Your task to perform on an android device: Open Chrome and go to settings Image 0: 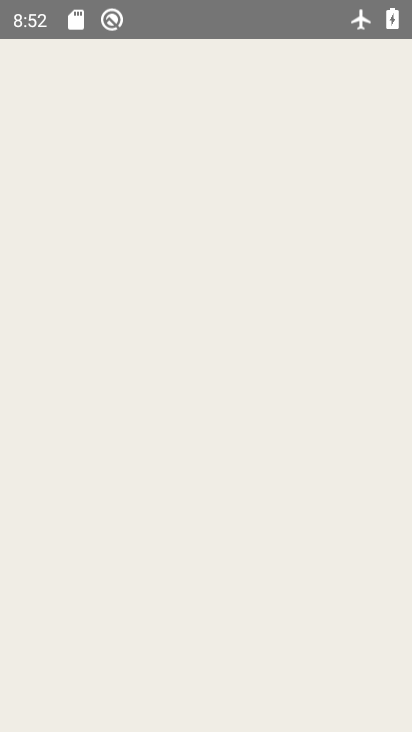
Step 0: click (204, 119)
Your task to perform on an android device: Open Chrome and go to settings Image 1: 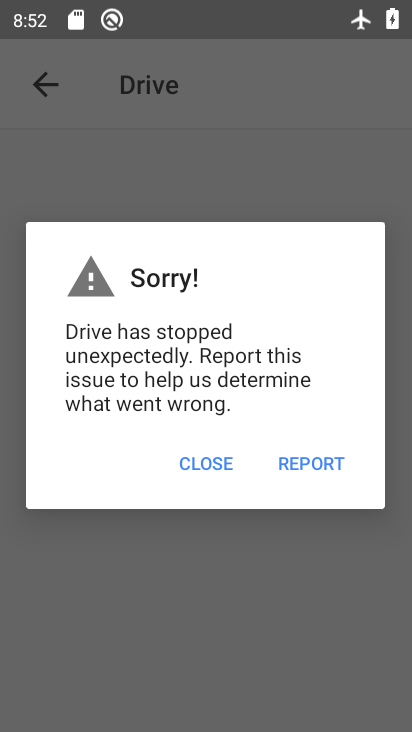
Step 1: press home button
Your task to perform on an android device: Open Chrome and go to settings Image 2: 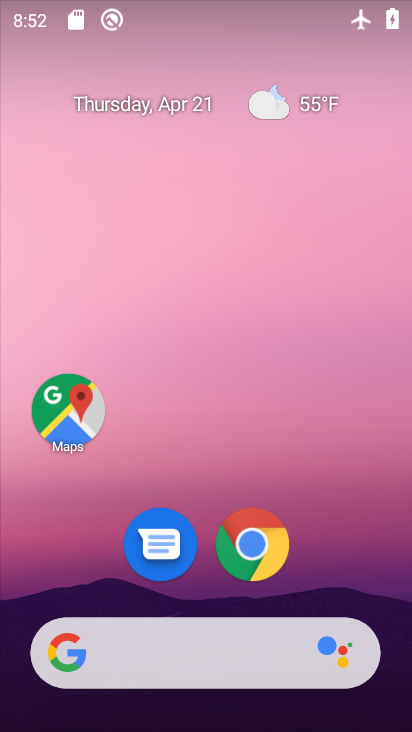
Step 2: click (252, 554)
Your task to perform on an android device: Open Chrome and go to settings Image 3: 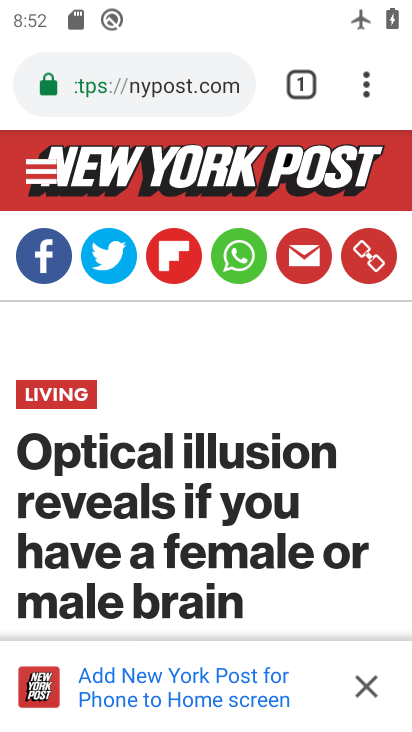
Step 3: task complete